Your task to perform on an android device: turn on bluetooth scan Image 0: 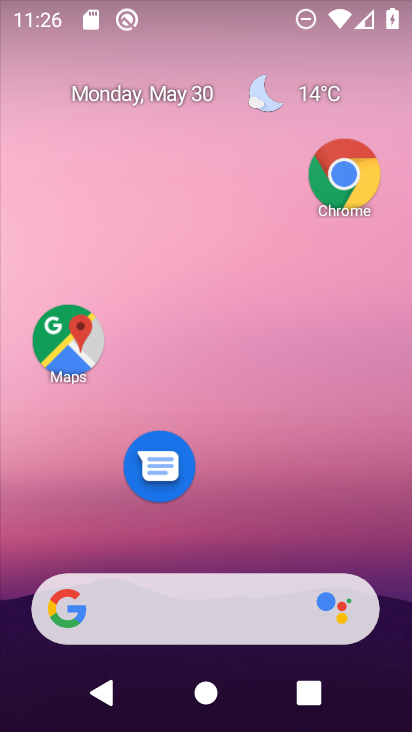
Step 0: drag from (297, 500) to (261, 132)
Your task to perform on an android device: turn on bluetooth scan Image 1: 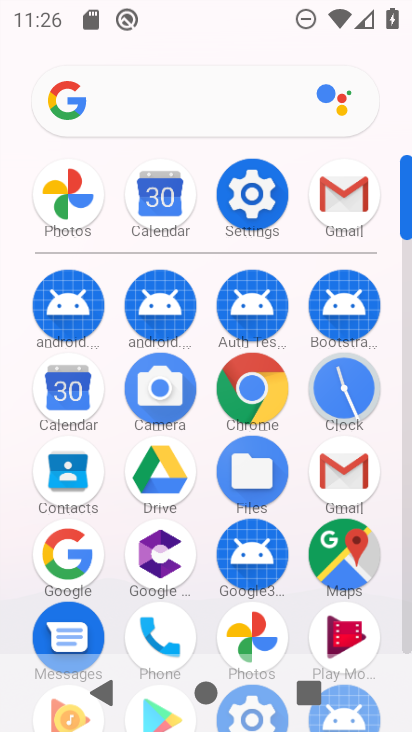
Step 1: click (236, 195)
Your task to perform on an android device: turn on bluetooth scan Image 2: 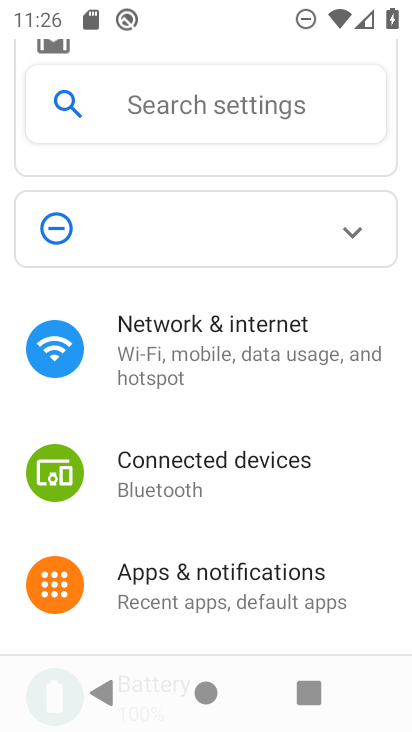
Step 2: click (242, 487)
Your task to perform on an android device: turn on bluetooth scan Image 3: 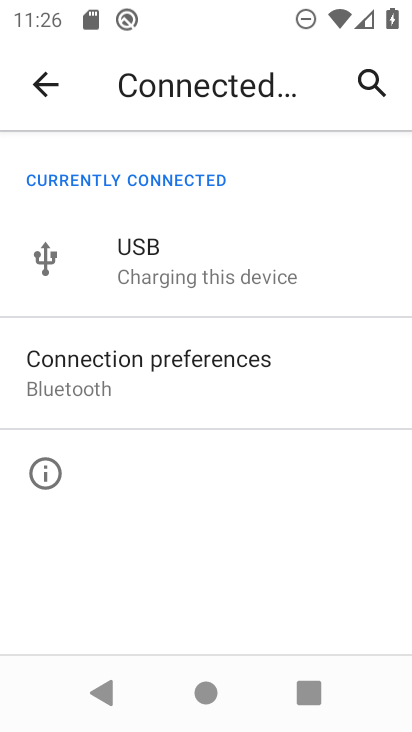
Step 3: click (157, 368)
Your task to perform on an android device: turn on bluetooth scan Image 4: 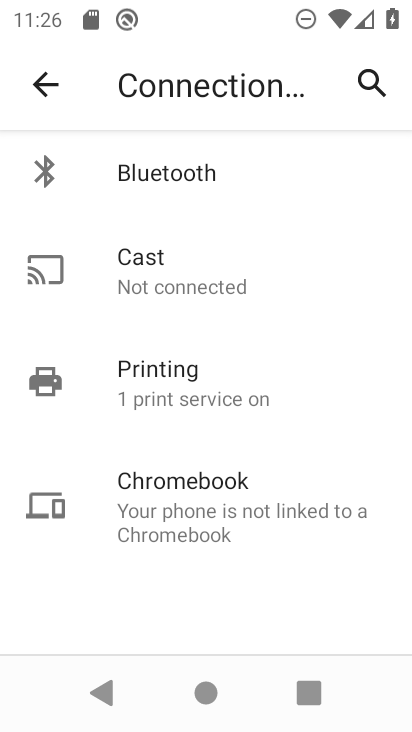
Step 4: click (98, 159)
Your task to perform on an android device: turn on bluetooth scan Image 5: 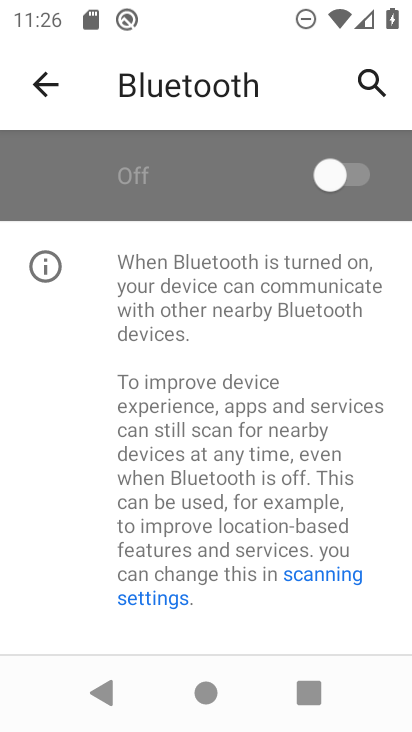
Step 5: drag from (241, 526) to (237, 309)
Your task to perform on an android device: turn on bluetooth scan Image 6: 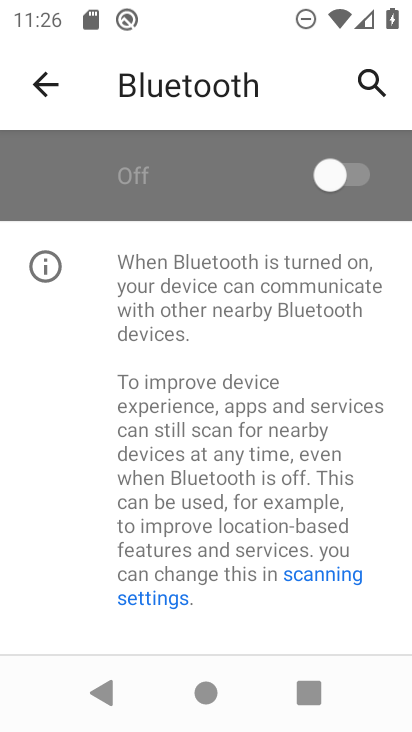
Step 6: drag from (249, 283) to (337, 453)
Your task to perform on an android device: turn on bluetooth scan Image 7: 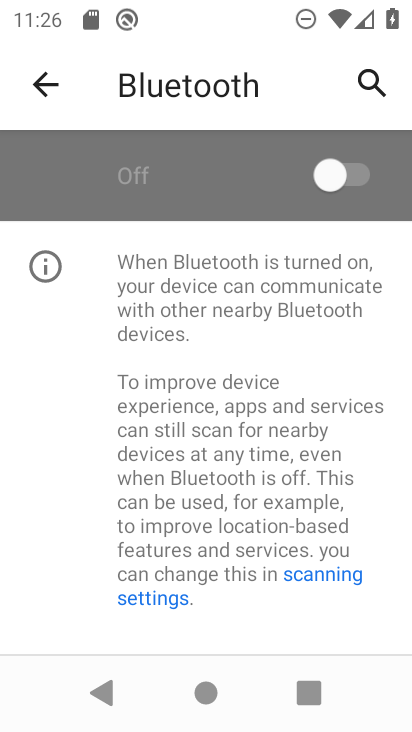
Step 7: click (354, 172)
Your task to perform on an android device: turn on bluetooth scan Image 8: 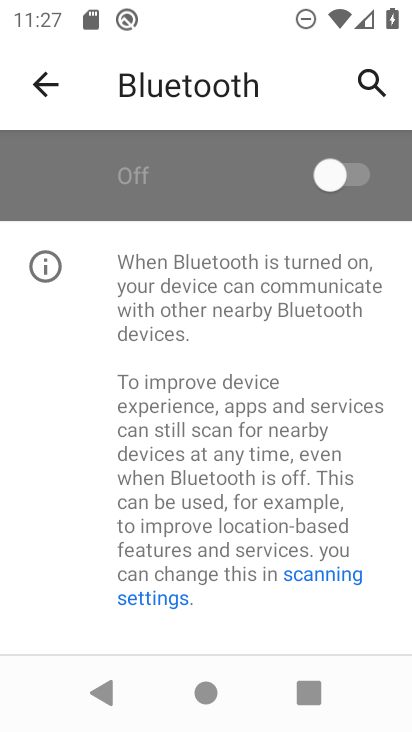
Step 8: click (327, 167)
Your task to perform on an android device: turn on bluetooth scan Image 9: 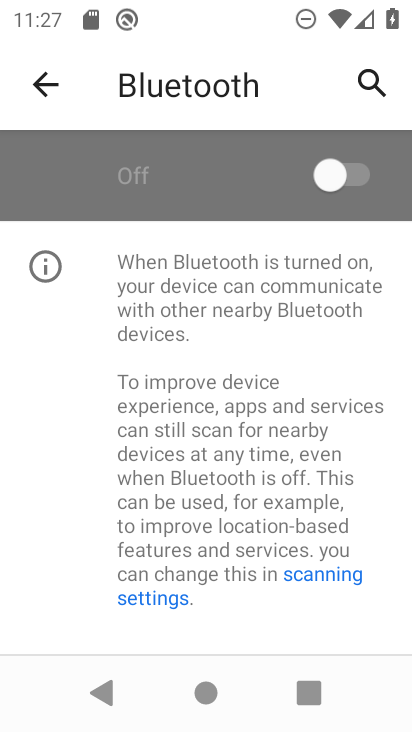
Step 9: click (327, 167)
Your task to perform on an android device: turn on bluetooth scan Image 10: 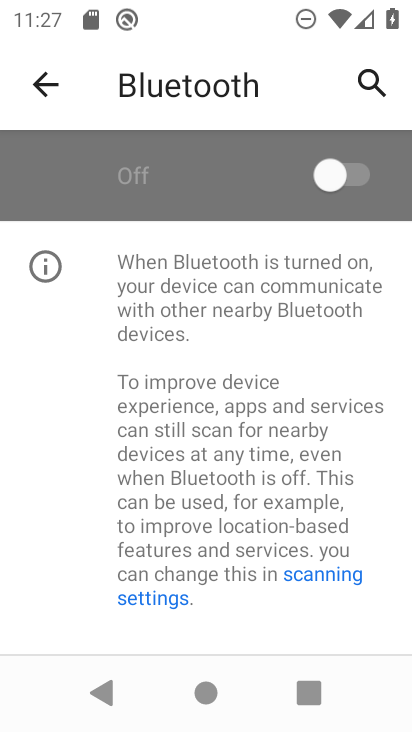
Step 10: click (327, 167)
Your task to perform on an android device: turn on bluetooth scan Image 11: 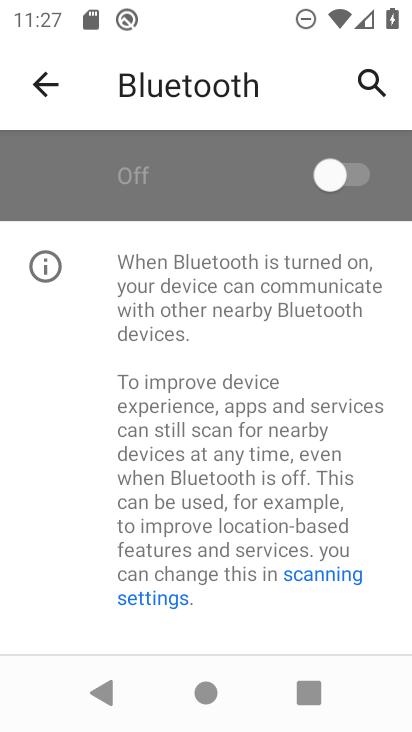
Step 11: click (327, 167)
Your task to perform on an android device: turn on bluetooth scan Image 12: 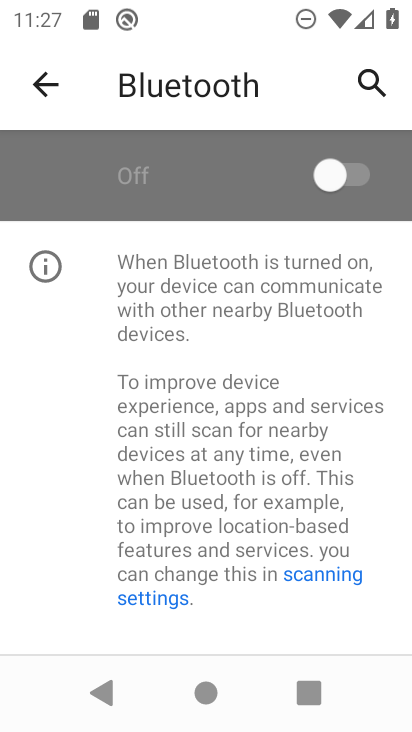
Step 12: click (327, 167)
Your task to perform on an android device: turn on bluetooth scan Image 13: 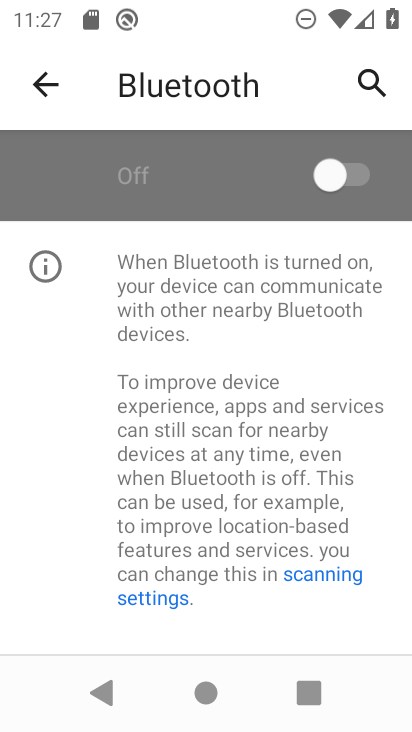
Step 13: click (327, 167)
Your task to perform on an android device: turn on bluetooth scan Image 14: 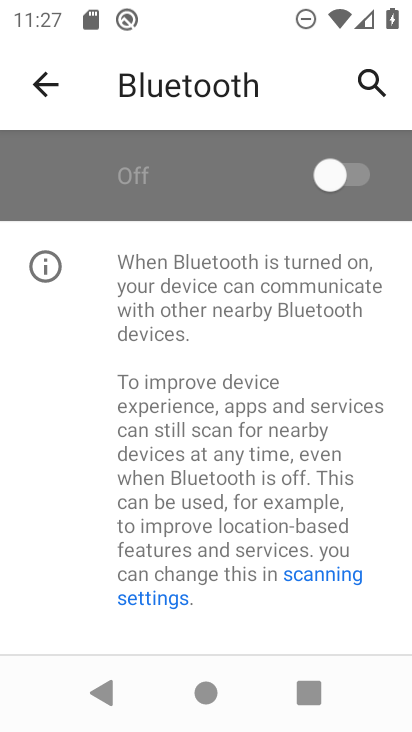
Step 14: drag from (327, 167) to (411, 183)
Your task to perform on an android device: turn on bluetooth scan Image 15: 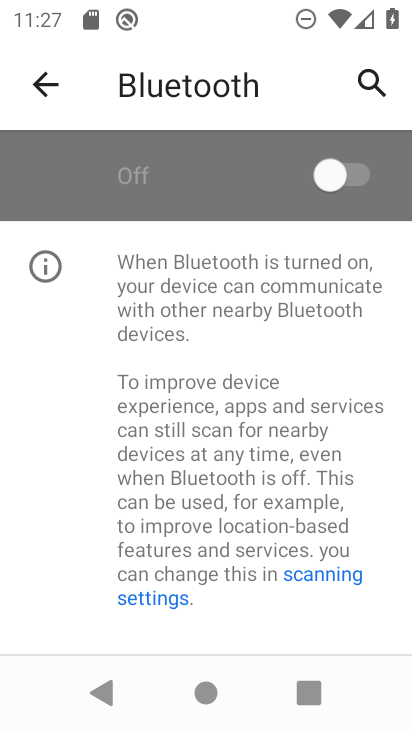
Step 15: click (246, 163)
Your task to perform on an android device: turn on bluetooth scan Image 16: 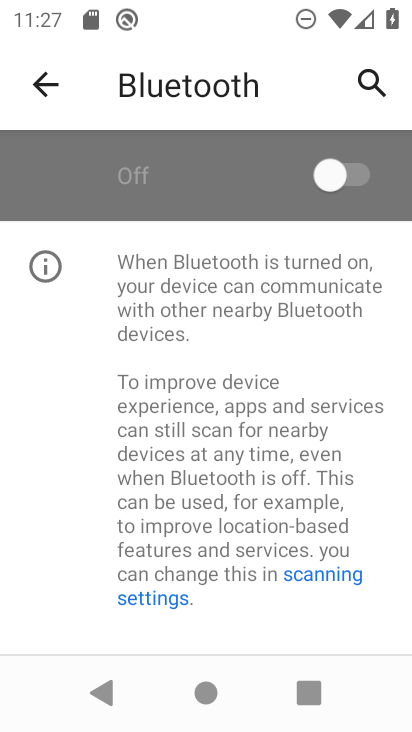
Step 16: click (246, 163)
Your task to perform on an android device: turn on bluetooth scan Image 17: 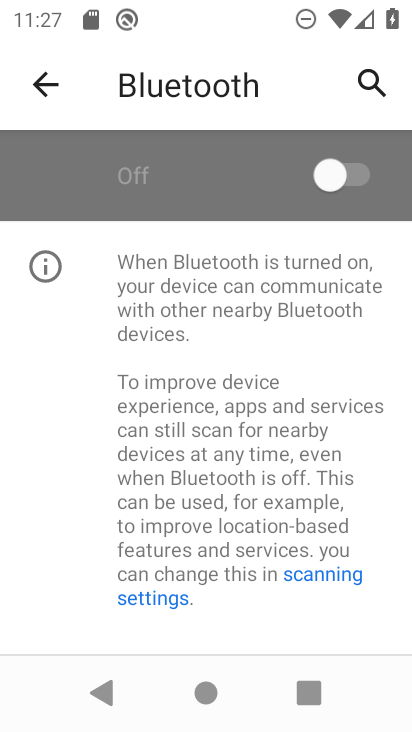
Step 17: click (246, 163)
Your task to perform on an android device: turn on bluetooth scan Image 18: 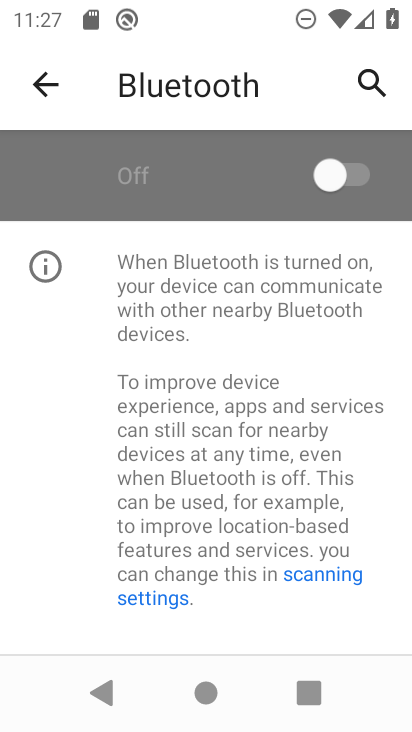
Step 18: click (246, 163)
Your task to perform on an android device: turn on bluetooth scan Image 19: 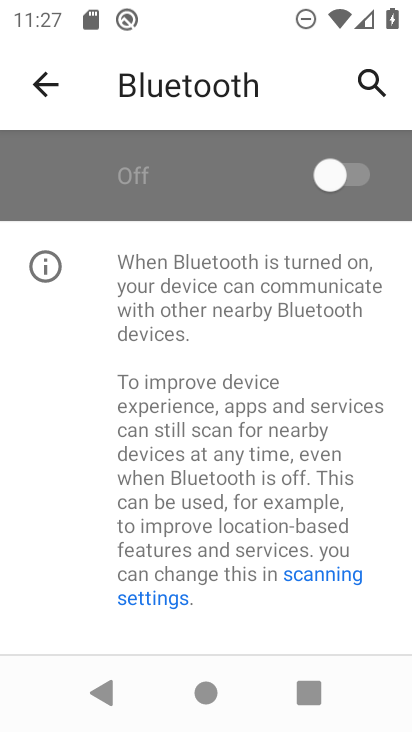
Step 19: click (345, 182)
Your task to perform on an android device: turn on bluetooth scan Image 20: 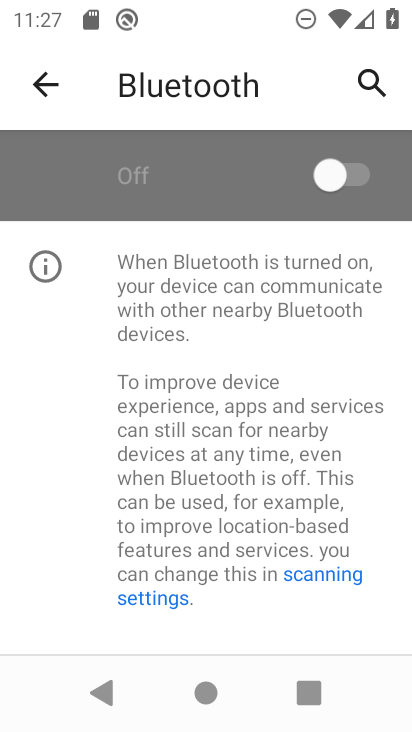
Step 20: click (345, 182)
Your task to perform on an android device: turn on bluetooth scan Image 21: 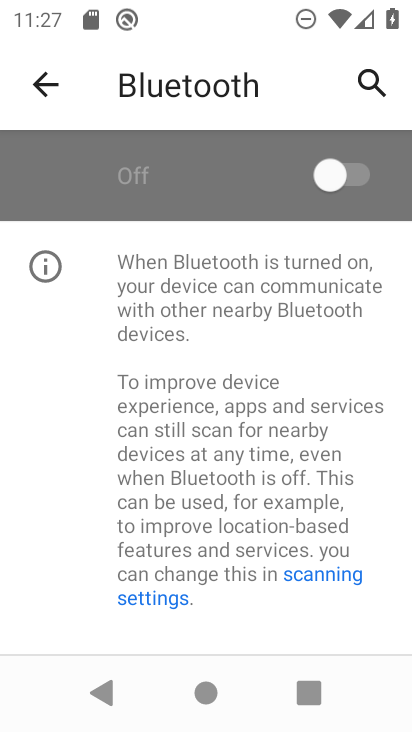
Step 21: click (340, 178)
Your task to perform on an android device: turn on bluetooth scan Image 22: 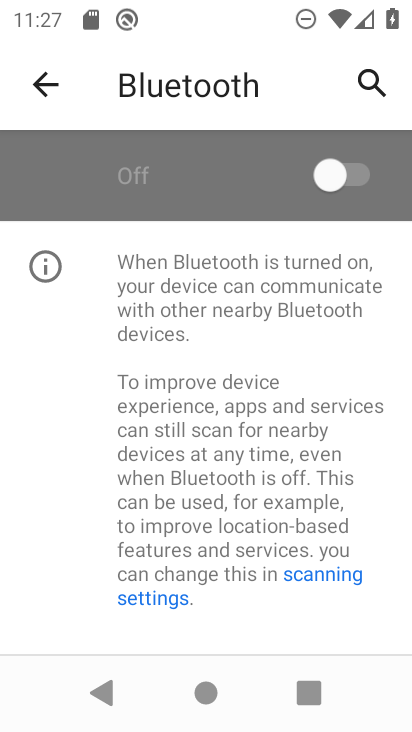
Step 22: click (334, 170)
Your task to perform on an android device: turn on bluetooth scan Image 23: 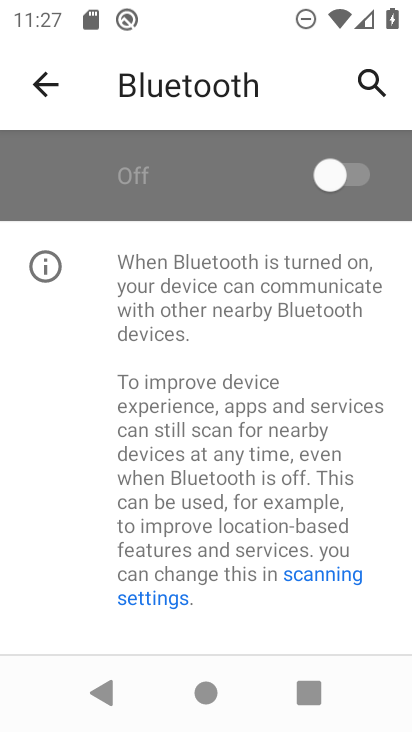
Step 23: click (334, 170)
Your task to perform on an android device: turn on bluetooth scan Image 24: 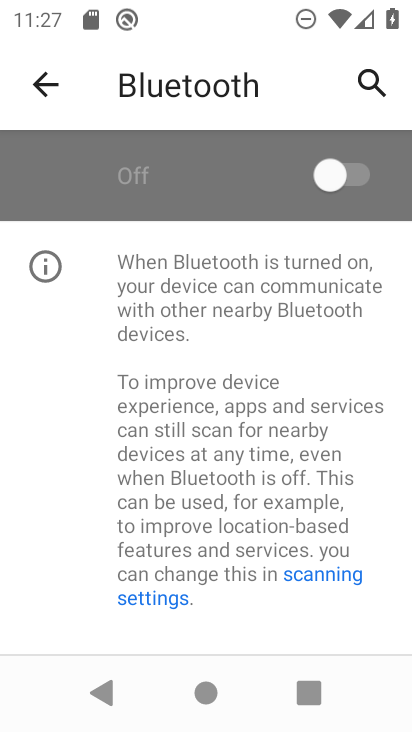
Step 24: click (334, 170)
Your task to perform on an android device: turn on bluetooth scan Image 25: 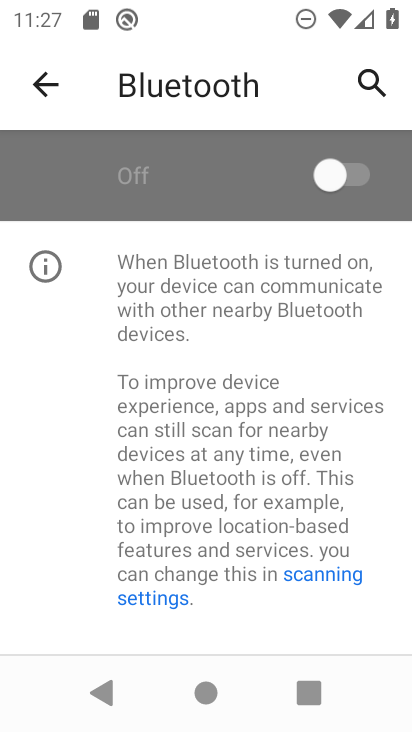
Step 25: click (331, 168)
Your task to perform on an android device: turn on bluetooth scan Image 26: 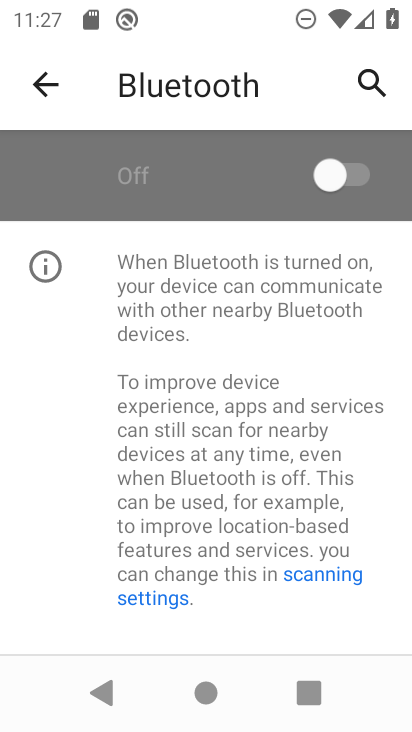
Step 26: click (331, 168)
Your task to perform on an android device: turn on bluetooth scan Image 27: 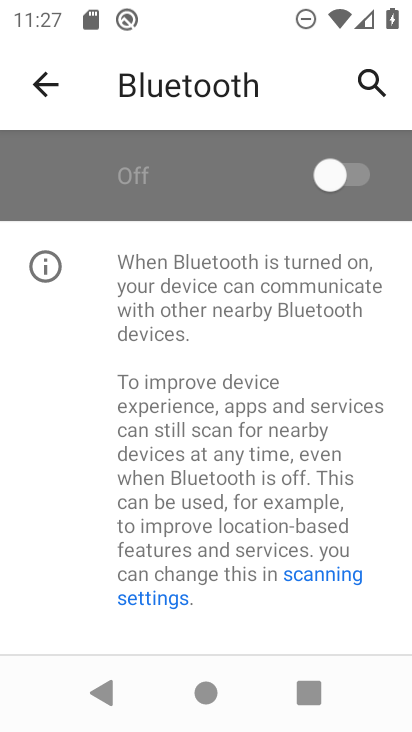
Step 27: press back button
Your task to perform on an android device: turn on bluetooth scan Image 28: 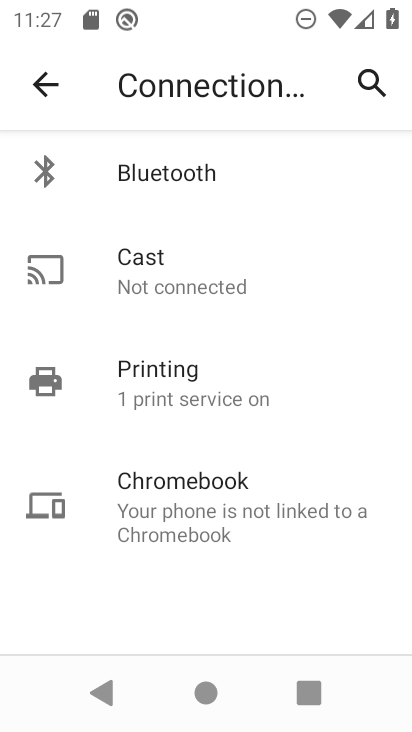
Step 28: click (128, 168)
Your task to perform on an android device: turn on bluetooth scan Image 29: 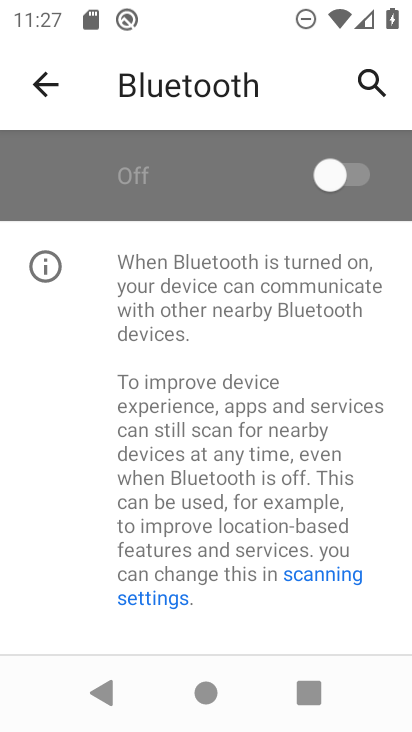
Step 29: click (323, 178)
Your task to perform on an android device: turn on bluetooth scan Image 30: 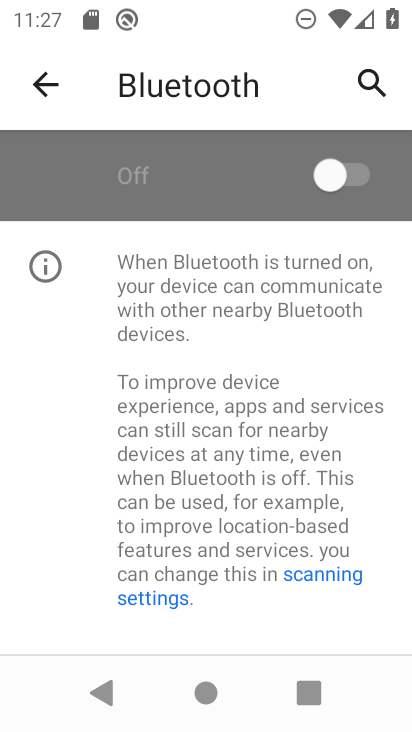
Step 30: task complete